Your task to perform on an android device: star an email in the gmail app Image 0: 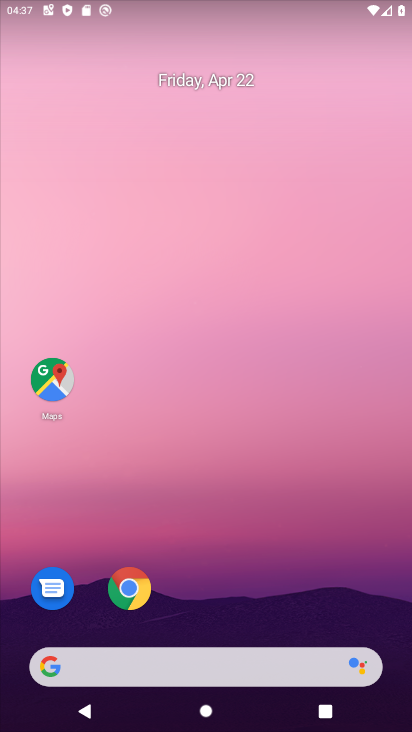
Step 0: drag from (283, 512) to (269, 40)
Your task to perform on an android device: star an email in the gmail app Image 1: 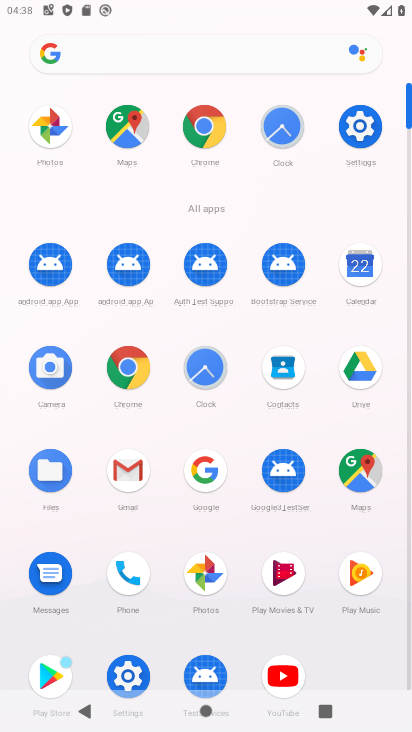
Step 1: click (132, 466)
Your task to perform on an android device: star an email in the gmail app Image 2: 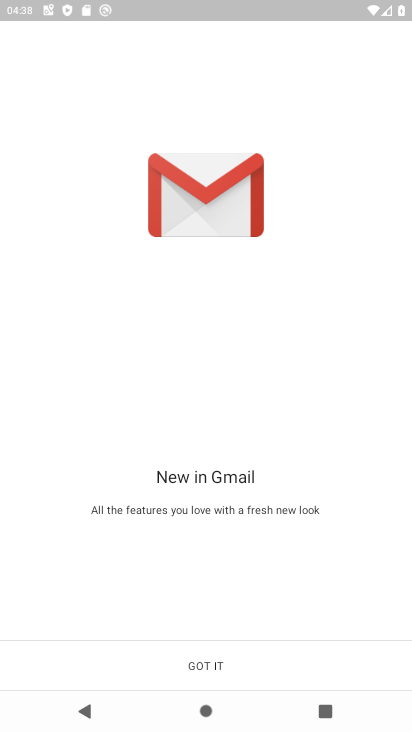
Step 2: click (188, 663)
Your task to perform on an android device: star an email in the gmail app Image 3: 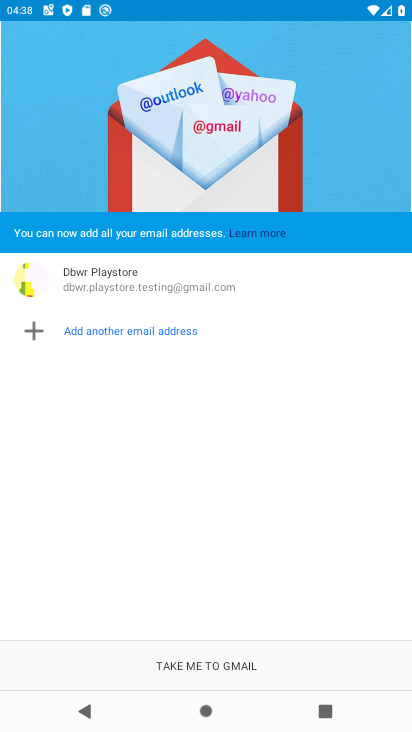
Step 3: click (188, 663)
Your task to perform on an android device: star an email in the gmail app Image 4: 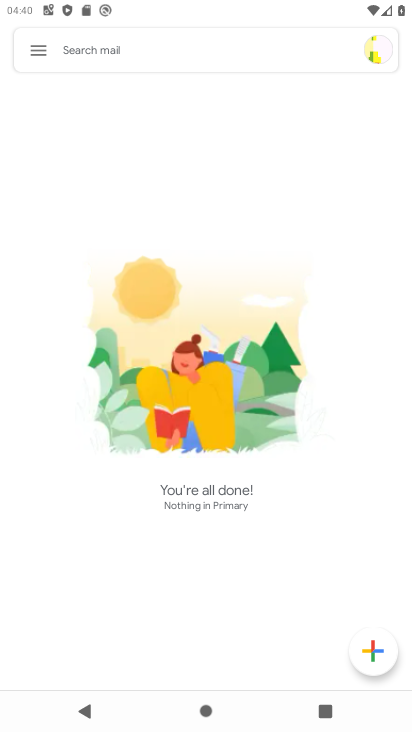
Step 4: task complete